Your task to perform on an android device: Open settings Image 0: 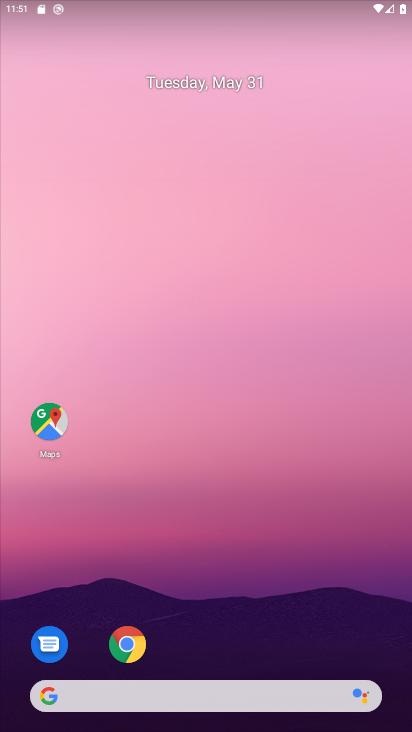
Step 0: drag from (246, 657) to (192, 121)
Your task to perform on an android device: Open settings Image 1: 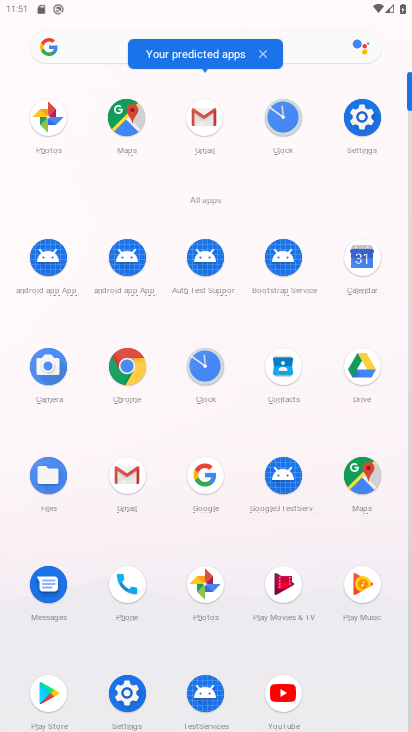
Step 1: click (358, 134)
Your task to perform on an android device: Open settings Image 2: 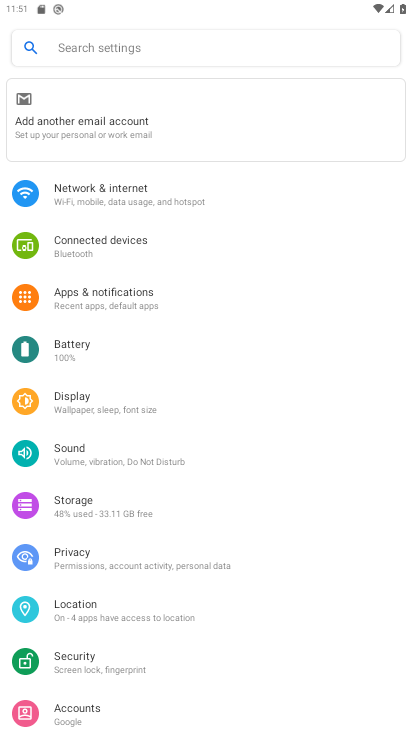
Step 2: task complete